Your task to perform on an android device: check android version Image 0: 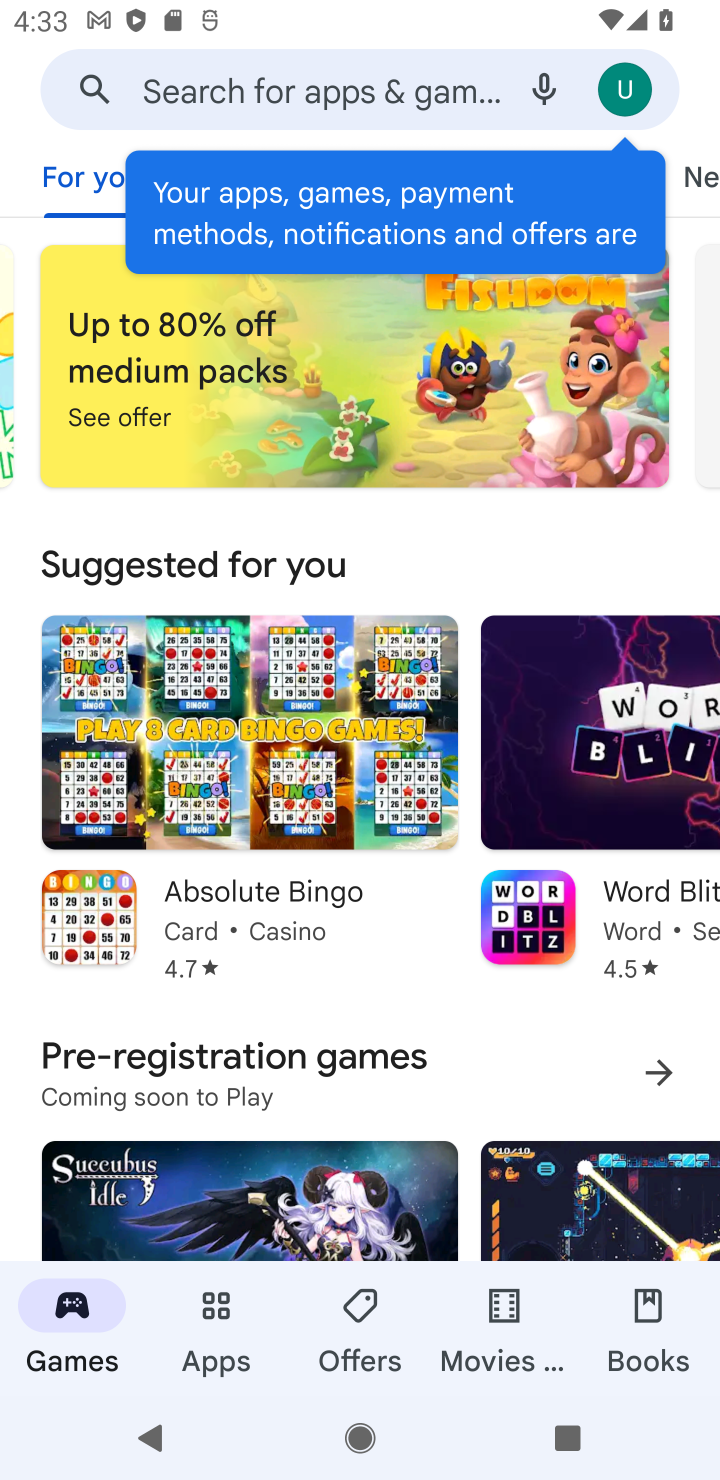
Step 0: press home button
Your task to perform on an android device: check android version Image 1: 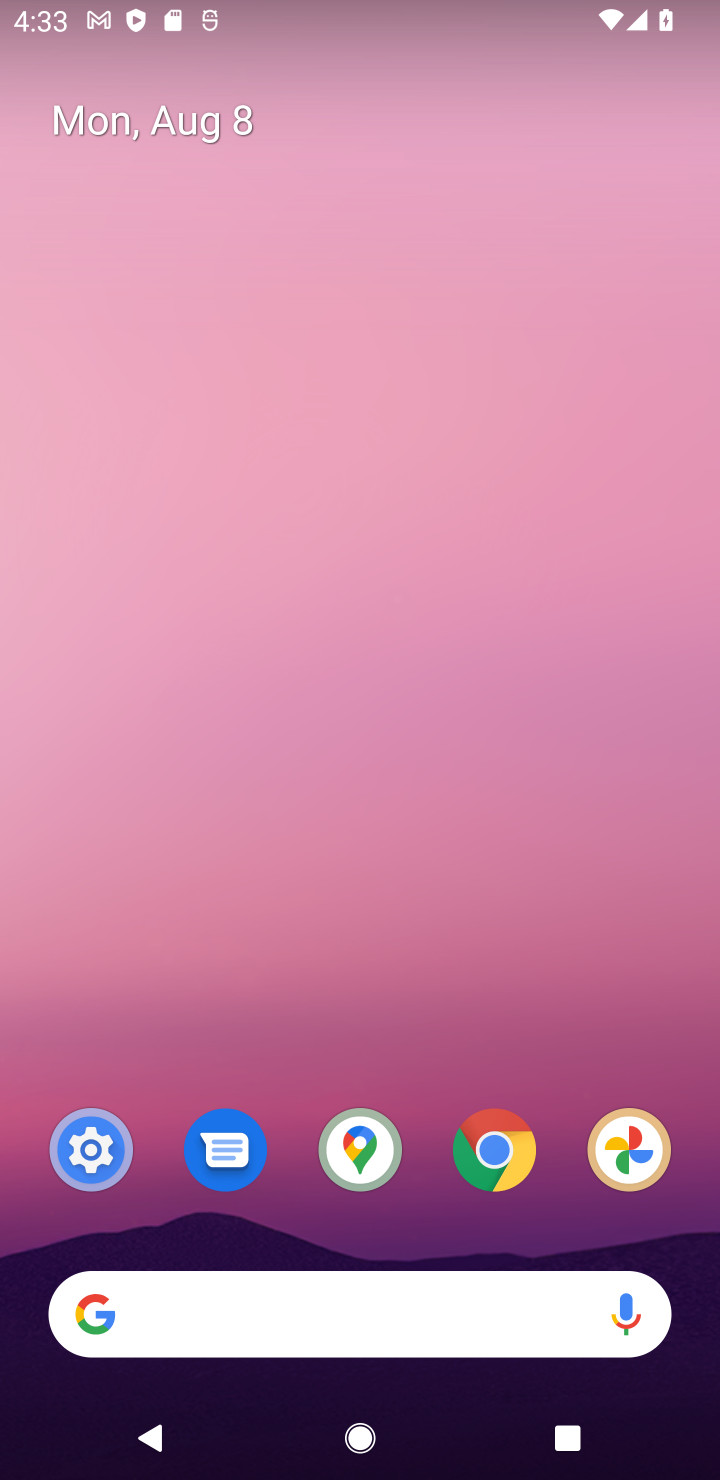
Step 1: click (66, 1124)
Your task to perform on an android device: check android version Image 2: 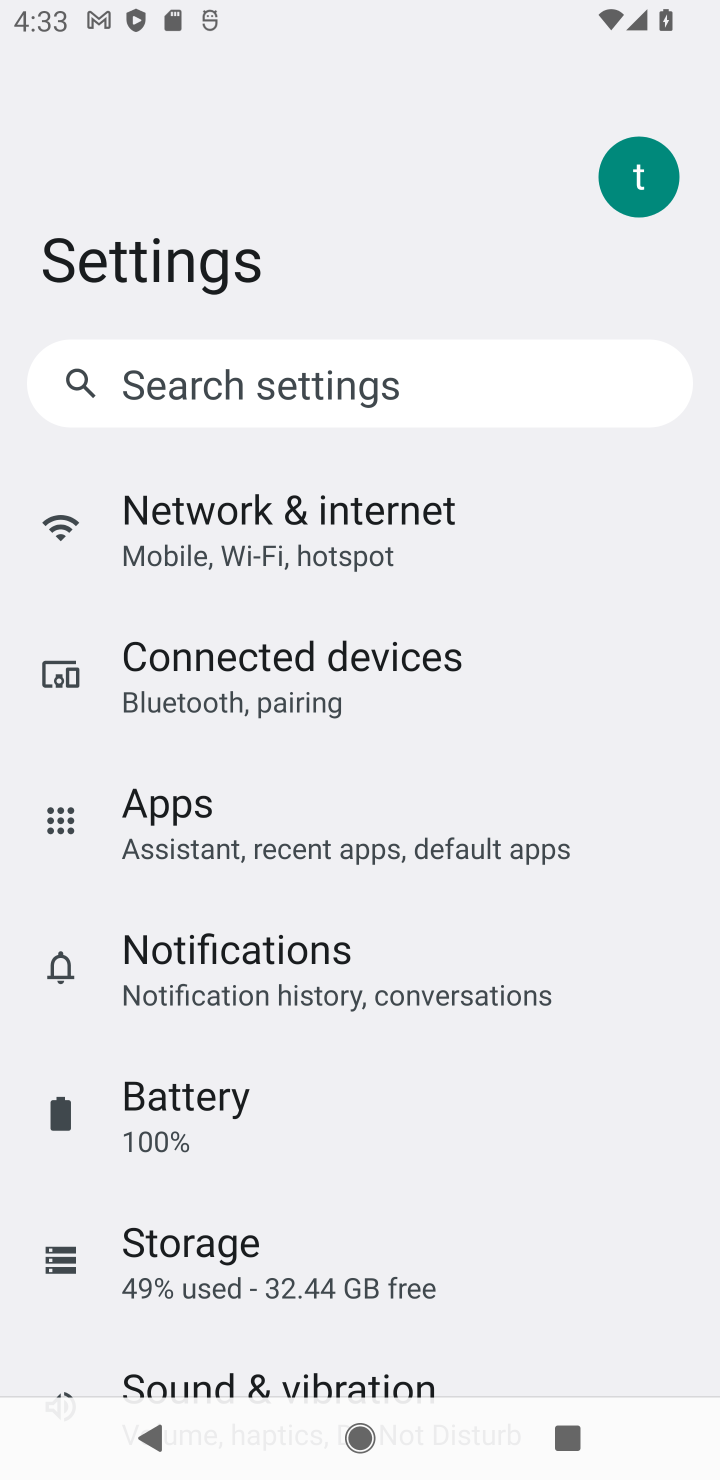
Step 2: drag from (523, 1348) to (386, 303)
Your task to perform on an android device: check android version Image 3: 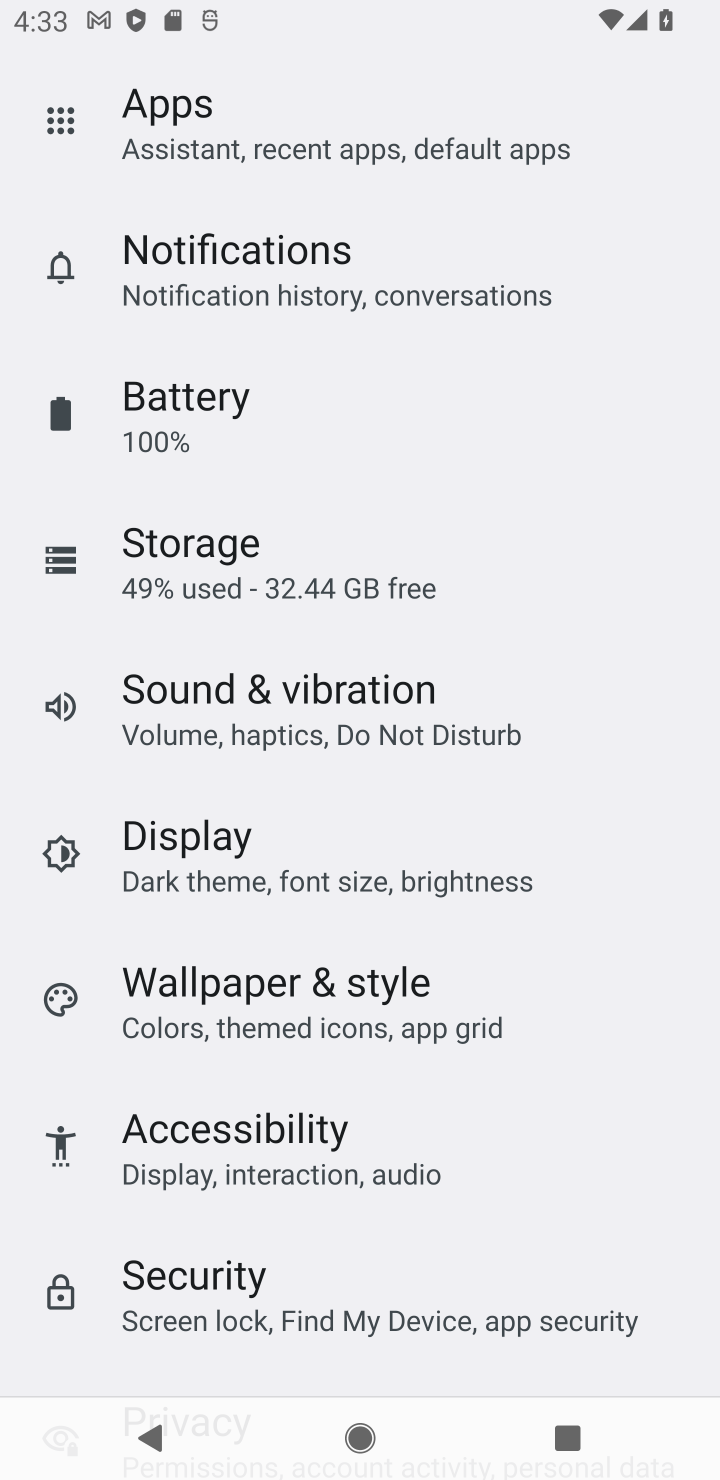
Step 3: drag from (358, 1191) to (336, 467)
Your task to perform on an android device: check android version Image 4: 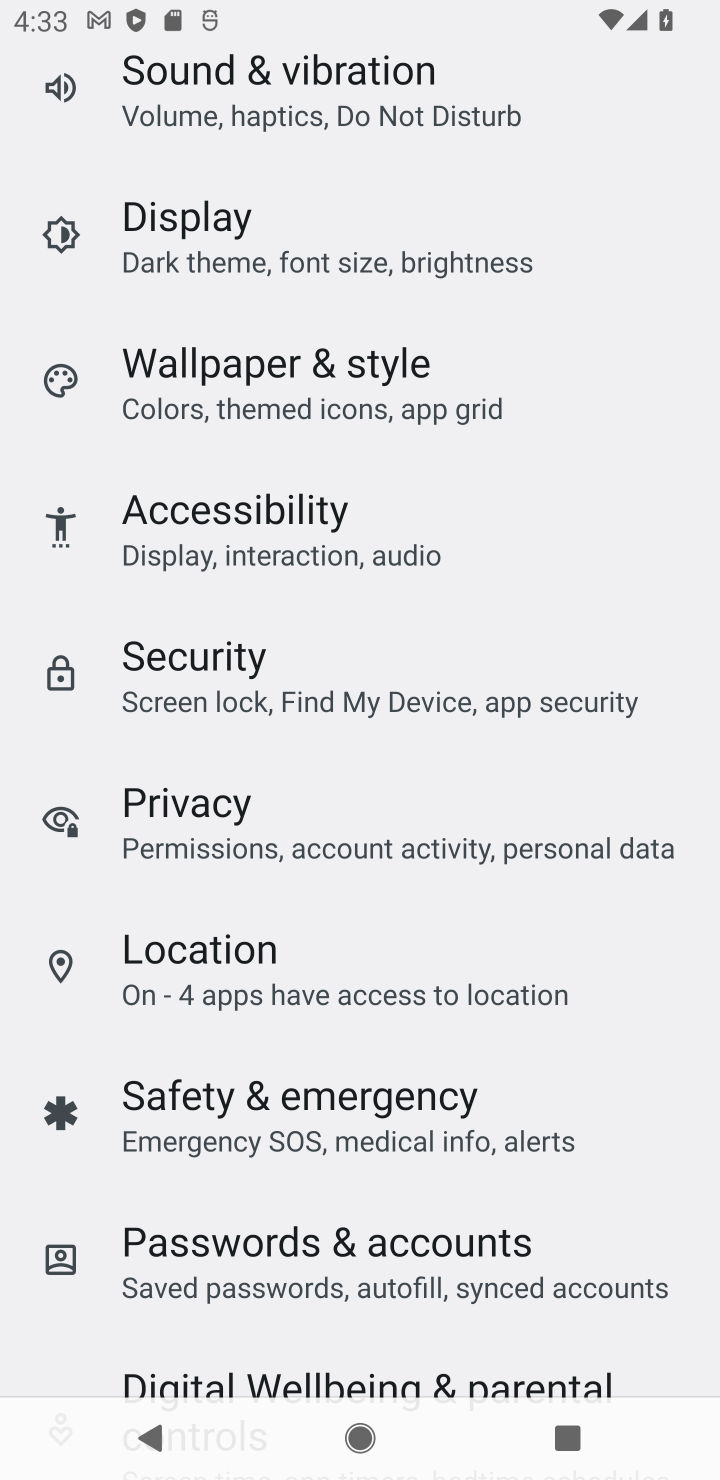
Step 4: drag from (380, 1136) to (384, 468)
Your task to perform on an android device: check android version Image 5: 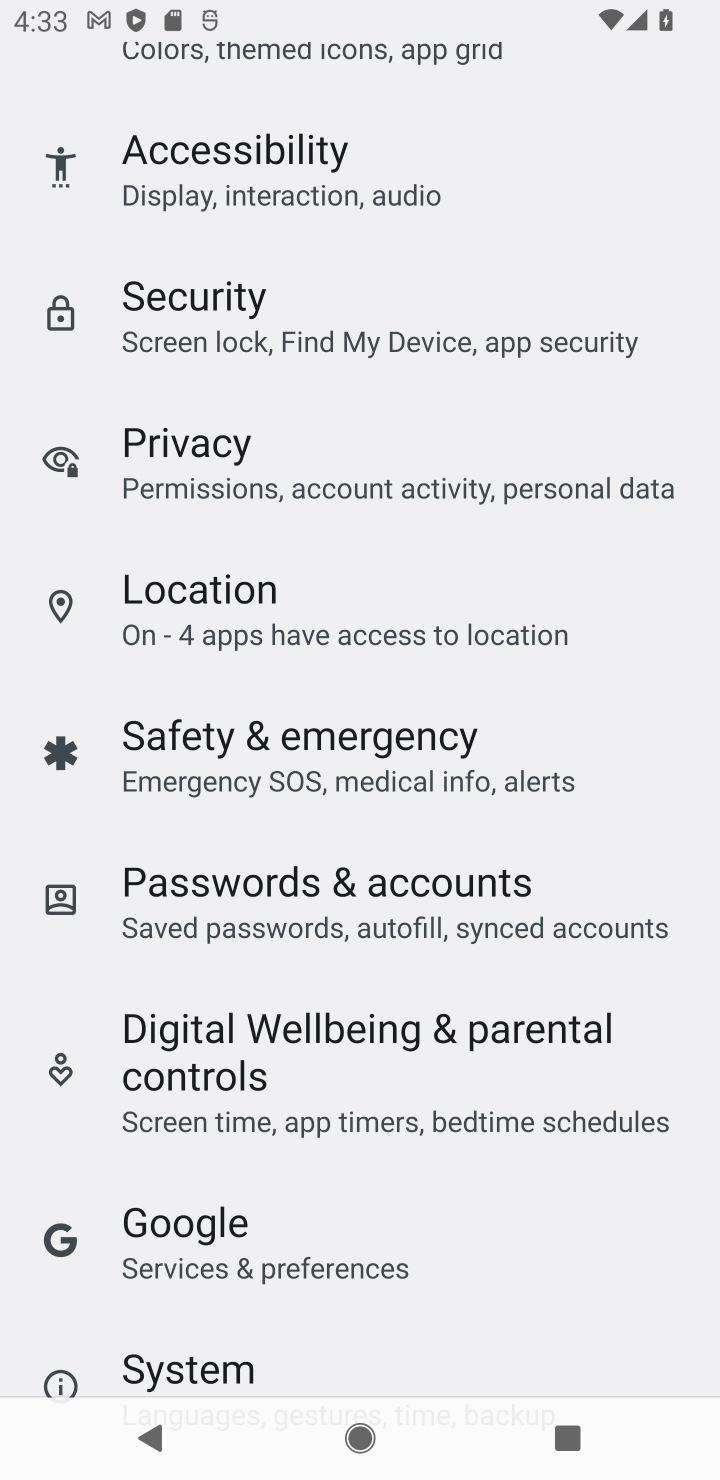
Step 5: drag from (356, 1151) to (326, 764)
Your task to perform on an android device: check android version Image 6: 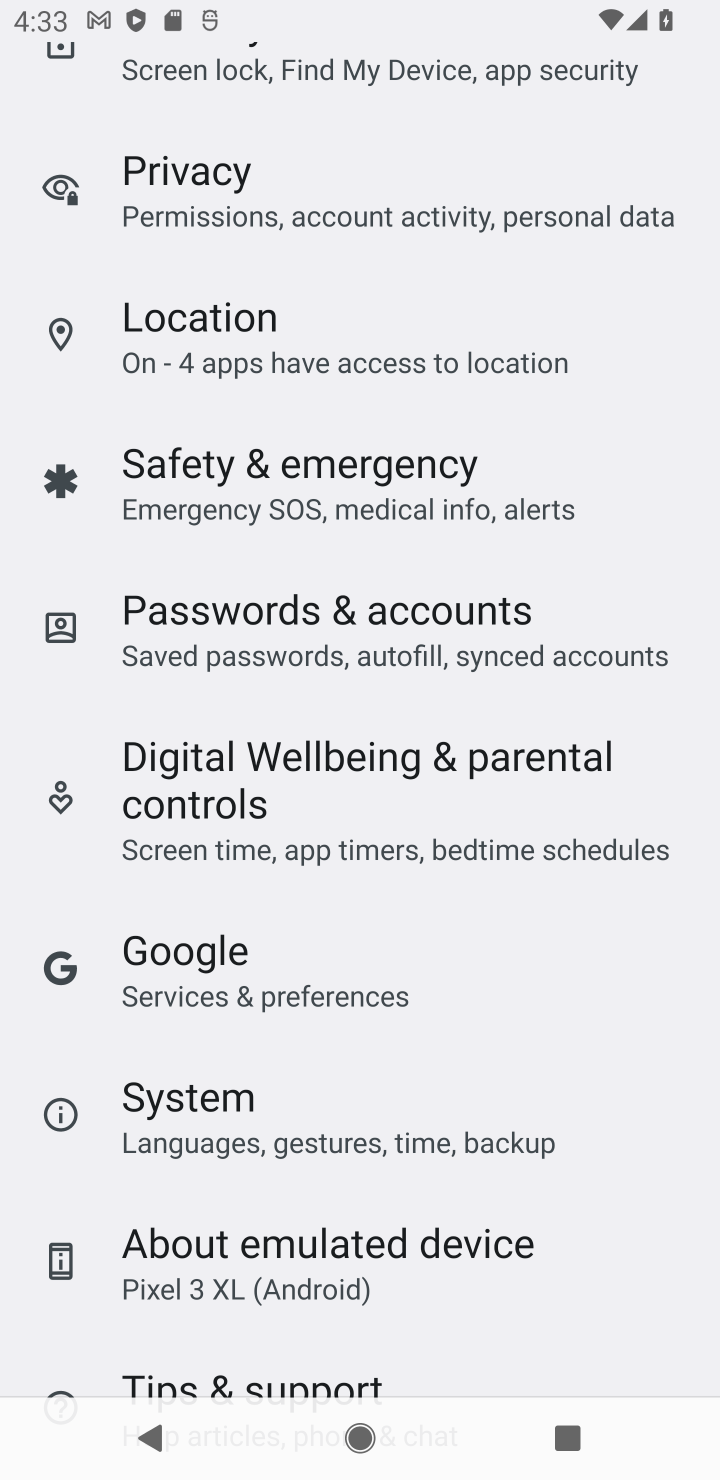
Step 6: click (268, 1265)
Your task to perform on an android device: check android version Image 7: 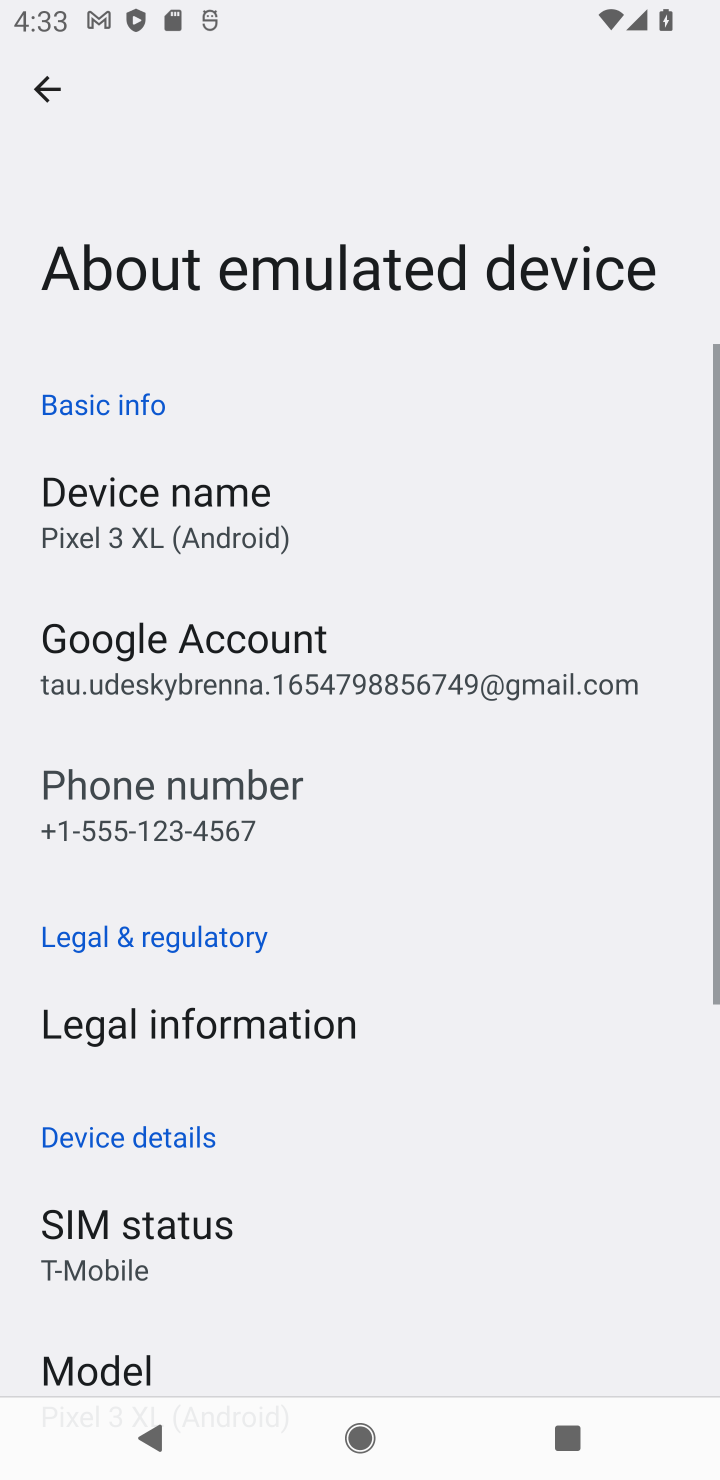
Step 7: drag from (311, 1187) to (357, 615)
Your task to perform on an android device: check android version Image 8: 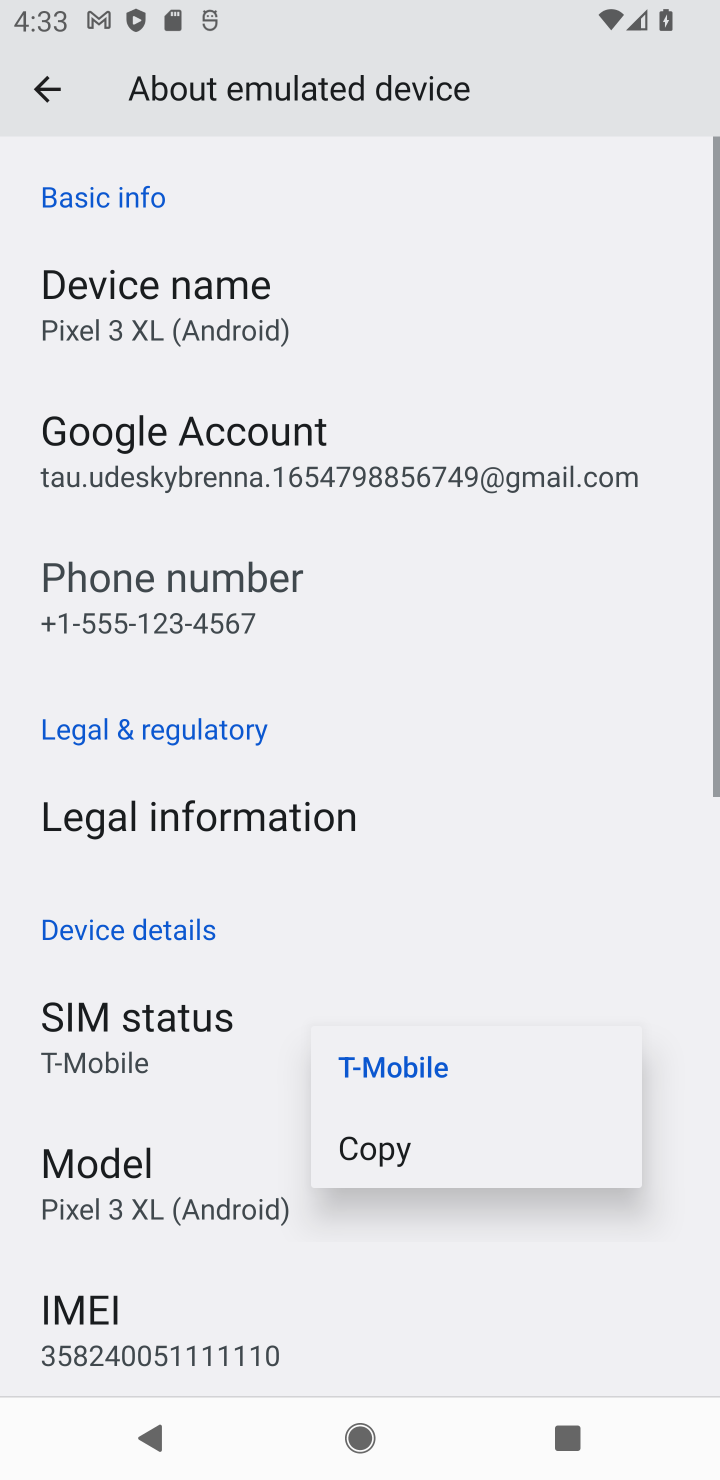
Step 8: click (357, 827)
Your task to perform on an android device: check android version Image 9: 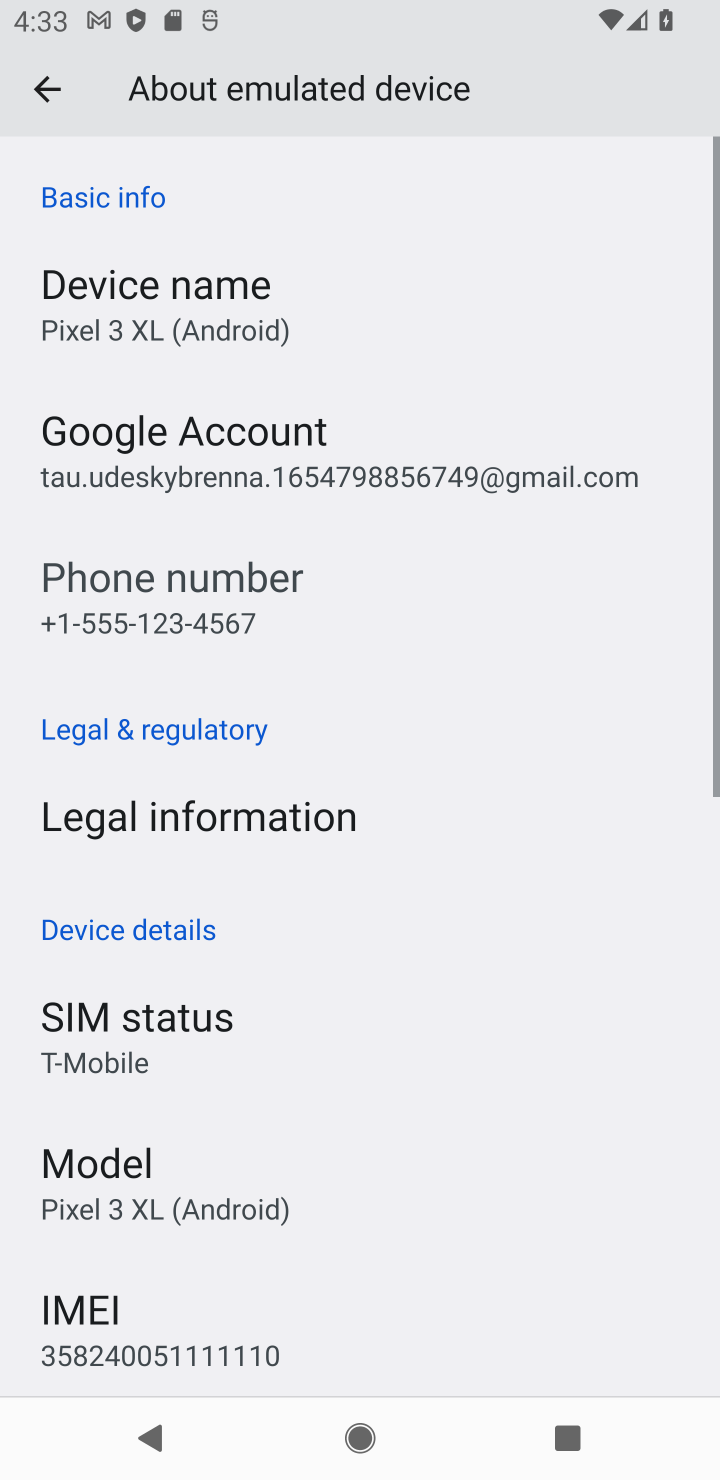
Step 9: drag from (337, 1205) to (346, 716)
Your task to perform on an android device: check android version Image 10: 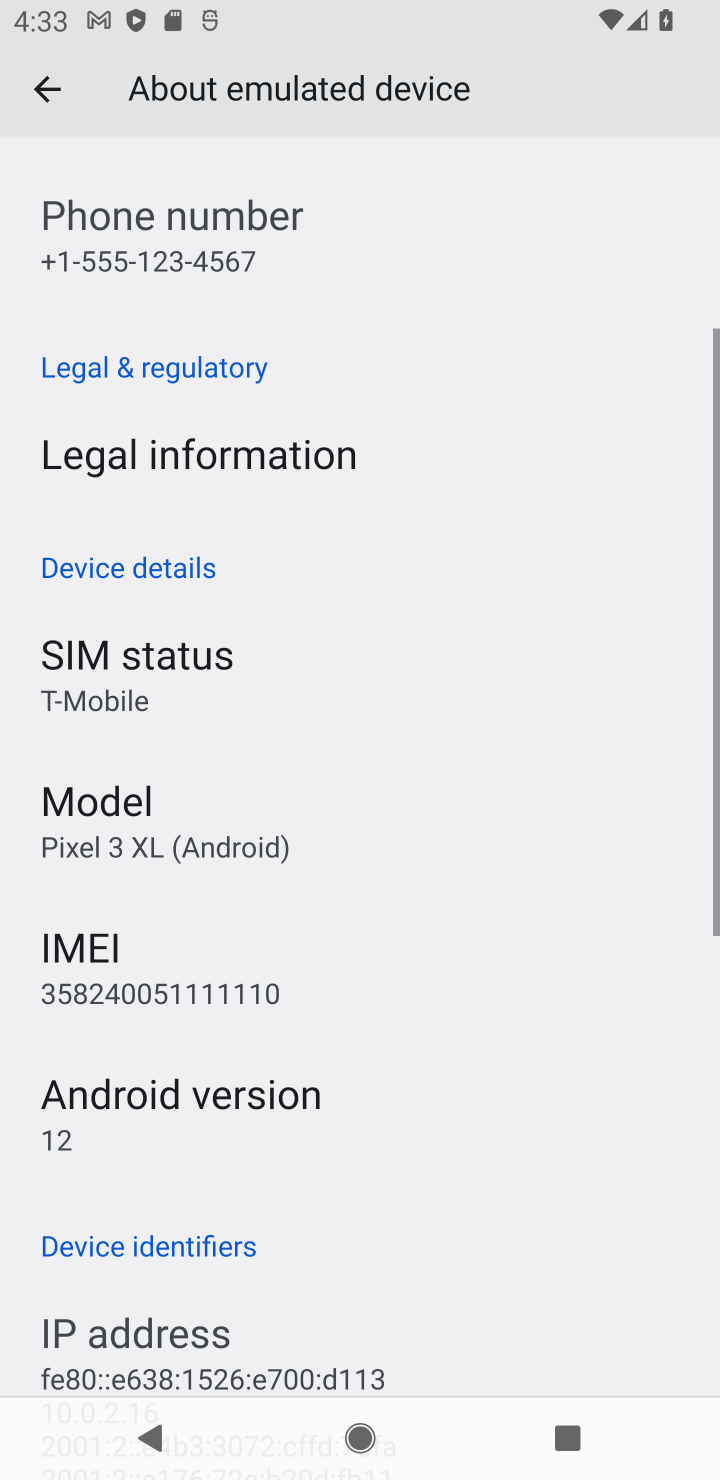
Step 10: click (314, 1060)
Your task to perform on an android device: check android version Image 11: 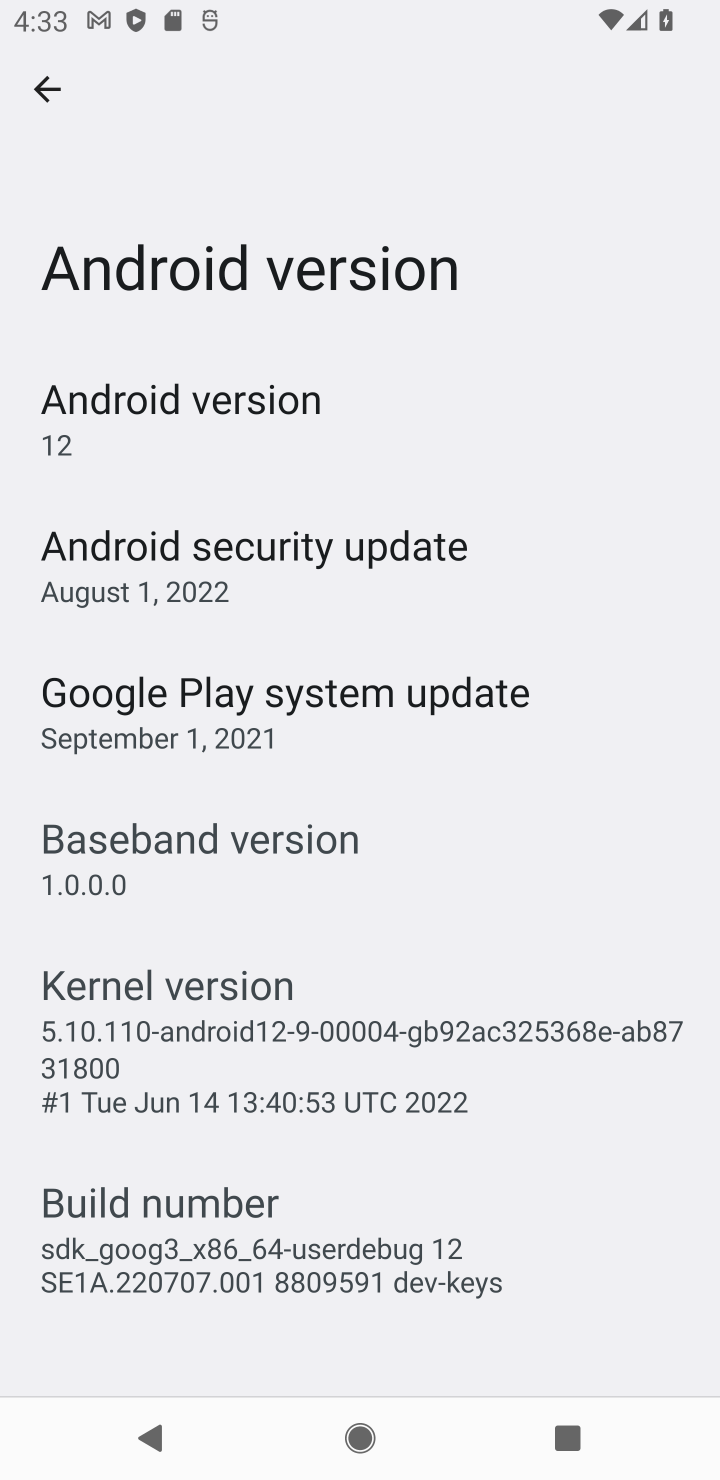
Step 11: task complete